Your task to perform on an android device: toggle wifi Image 0: 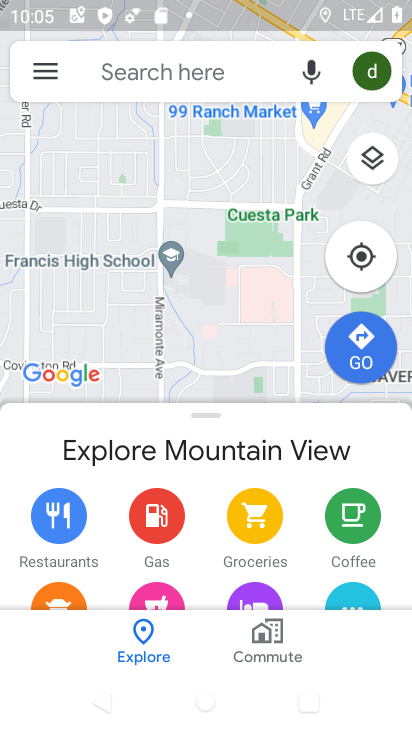
Step 0: press home button
Your task to perform on an android device: toggle wifi Image 1: 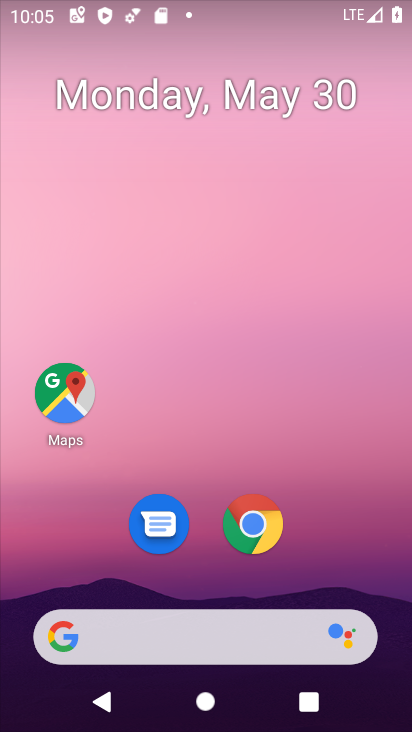
Step 1: drag from (269, 379) to (318, 25)
Your task to perform on an android device: toggle wifi Image 2: 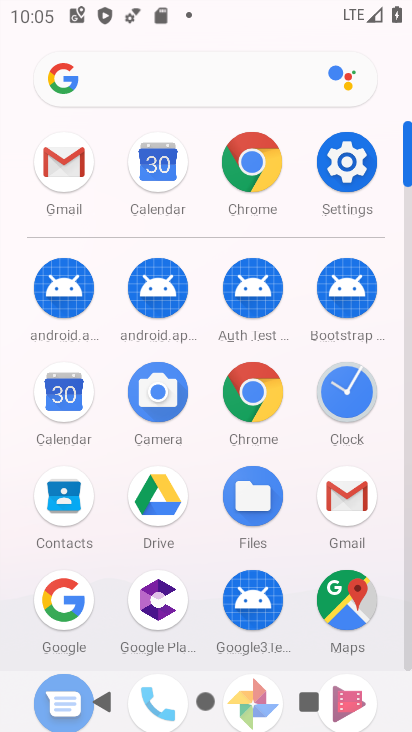
Step 2: click (338, 160)
Your task to perform on an android device: toggle wifi Image 3: 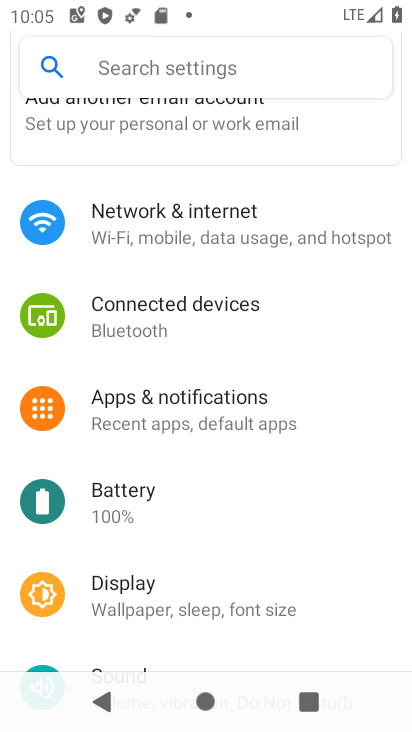
Step 3: click (235, 215)
Your task to perform on an android device: toggle wifi Image 4: 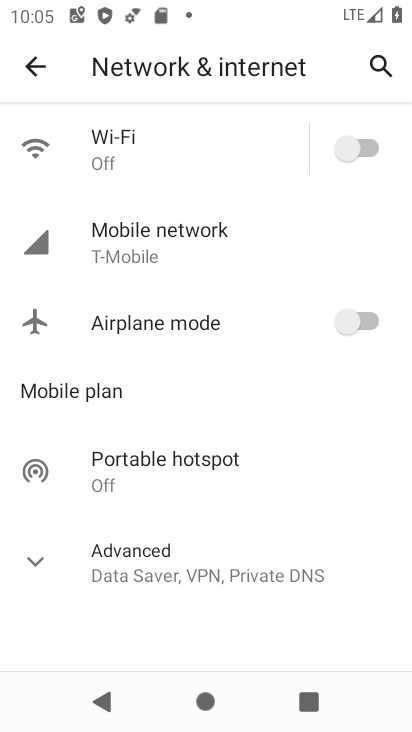
Step 4: click (366, 142)
Your task to perform on an android device: toggle wifi Image 5: 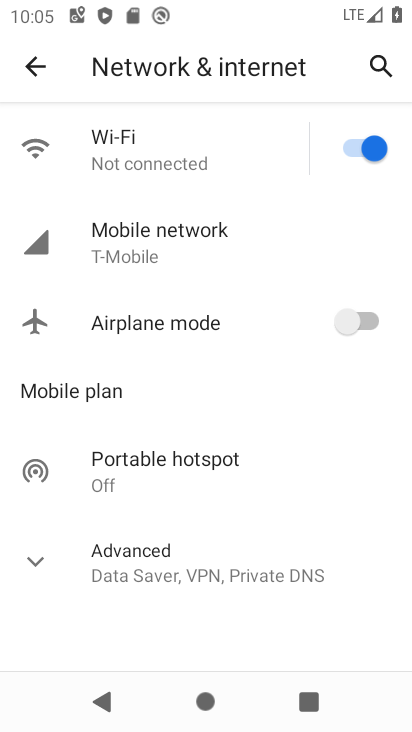
Step 5: task complete